Your task to perform on an android device: Go to Yahoo.com Image 0: 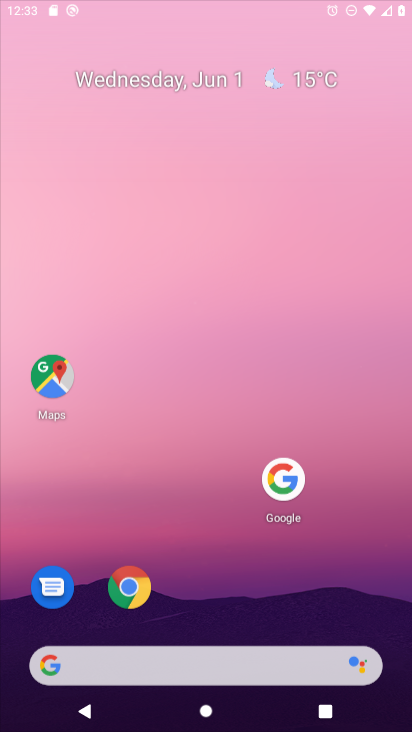
Step 0: press home button
Your task to perform on an android device: Go to Yahoo.com Image 1: 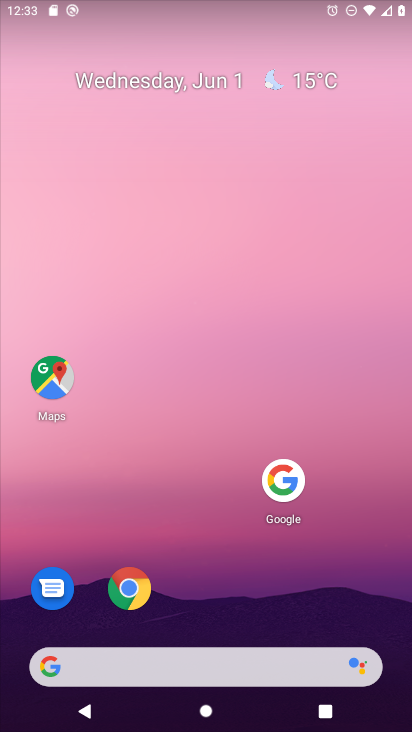
Step 1: click (231, 92)
Your task to perform on an android device: Go to Yahoo.com Image 2: 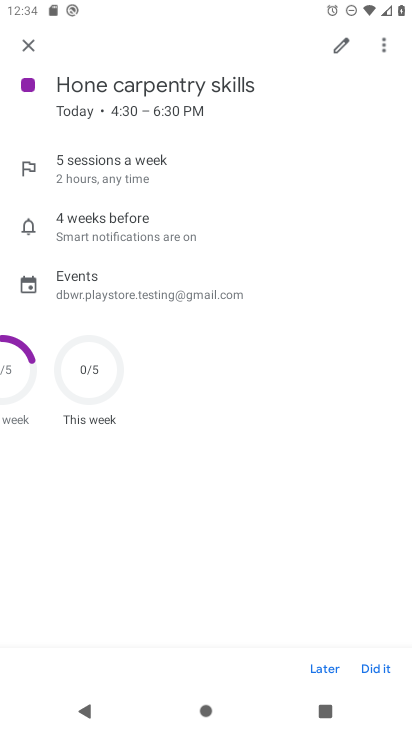
Step 2: drag from (168, 663) to (265, 224)
Your task to perform on an android device: Go to Yahoo.com Image 3: 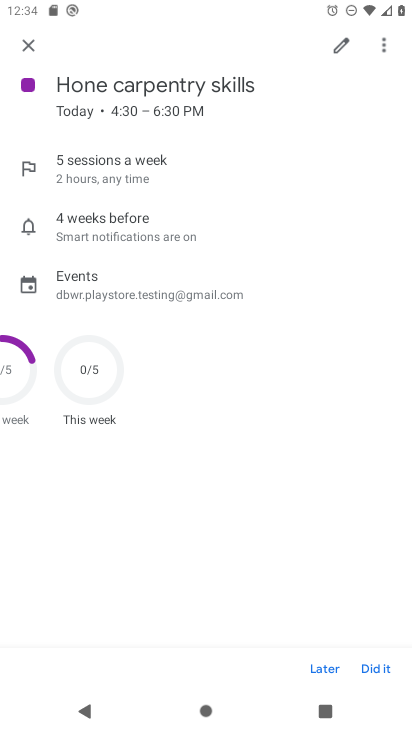
Step 3: press home button
Your task to perform on an android device: Go to Yahoo.com Image 4: 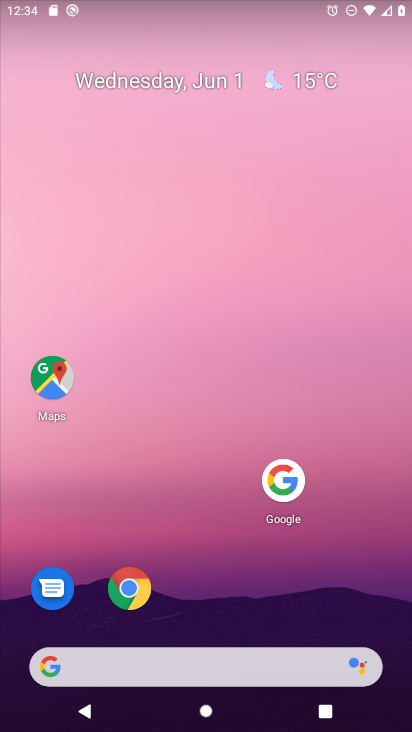
Step 4: drag from (155, 666) to (272, 137)
Your task to perform on an android device: Go to Yahoo.com Image 5: 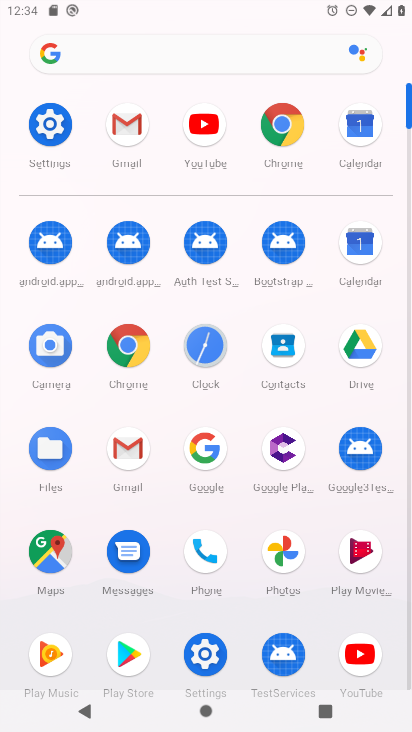
Step 5: click (283, 125)
Your task to perform on an android device: Go to Yahoo.com Image 6: 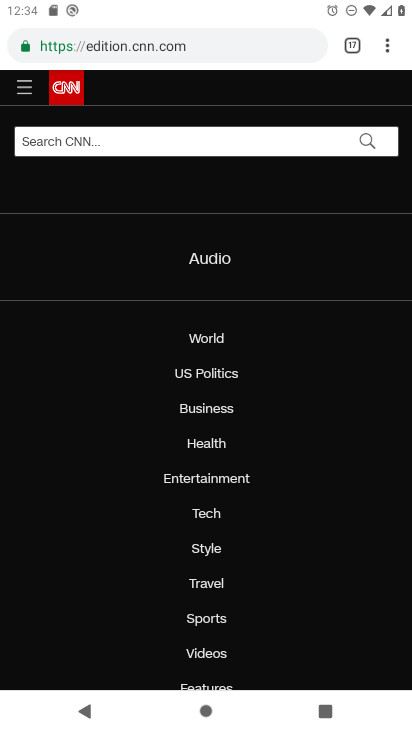
Step 6: drag from (386, 45) to (257, 87)
Your task to perform on an android device: Go to Yahoo.com Image 7: 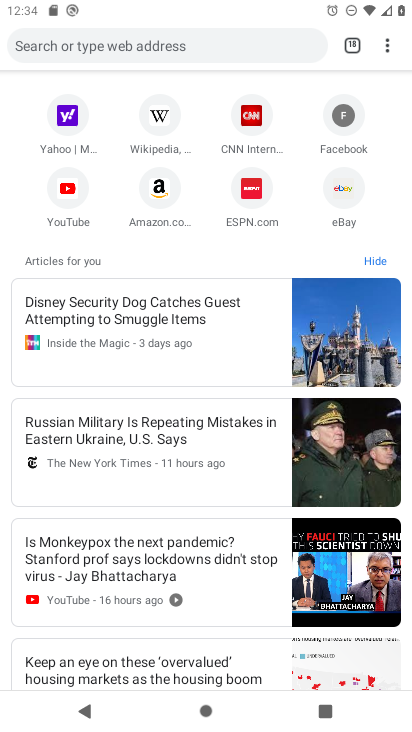
Step 7: click (64, 125)
Your task to perform on an android device: Go to Yahoo.com Image 8: 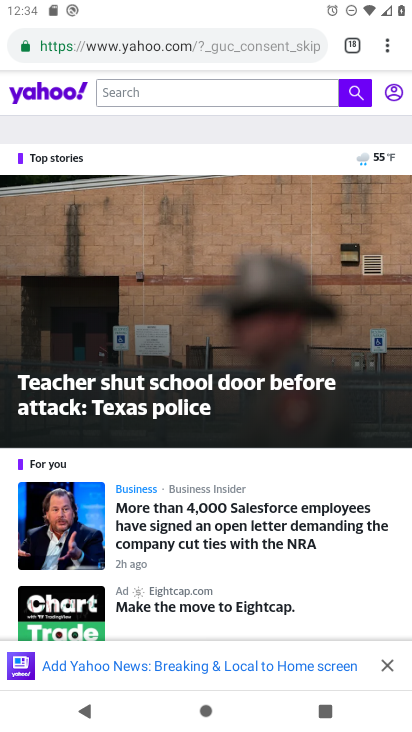
Step 8: task complete